Your task to perform on an android device: Go to location settings Image 0: 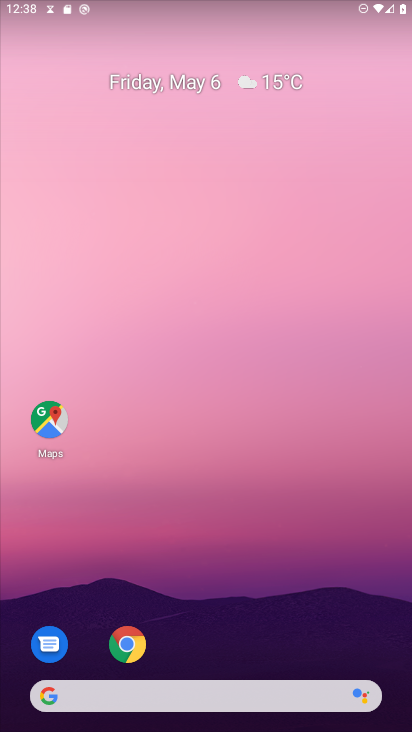
Step 0: drag from (356, 587) to (218, 6)
Your task to perform on an android device: Go to location settings Image 1: 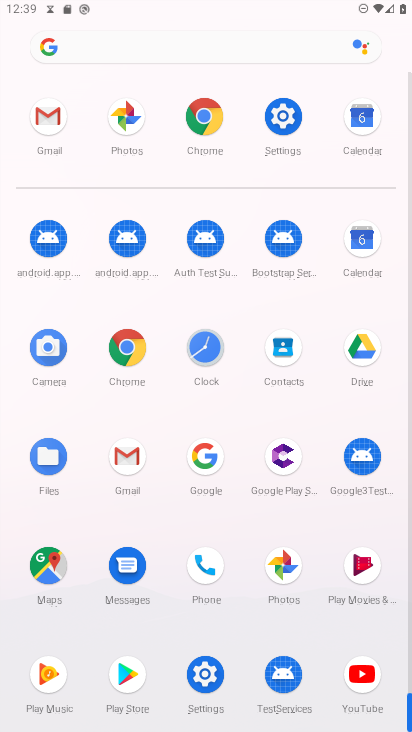
Step 1: click (282, 115)
Your task to perform on an android device: Go to location settings Image 2: 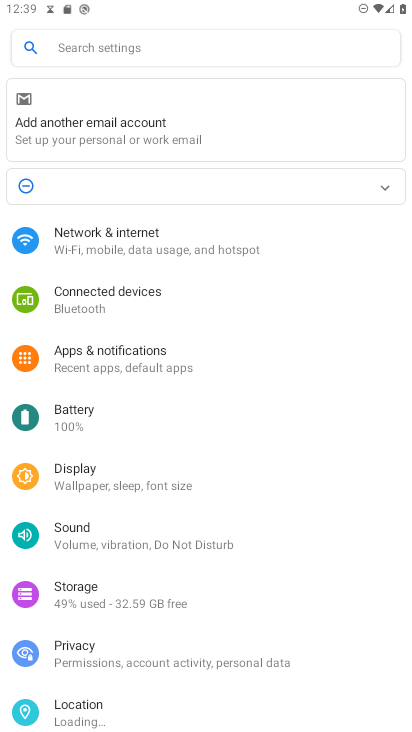
Step 2: drag from (270, 519) to (271, 131)
Your task to perform on an android device: Go to location settings Image 3: 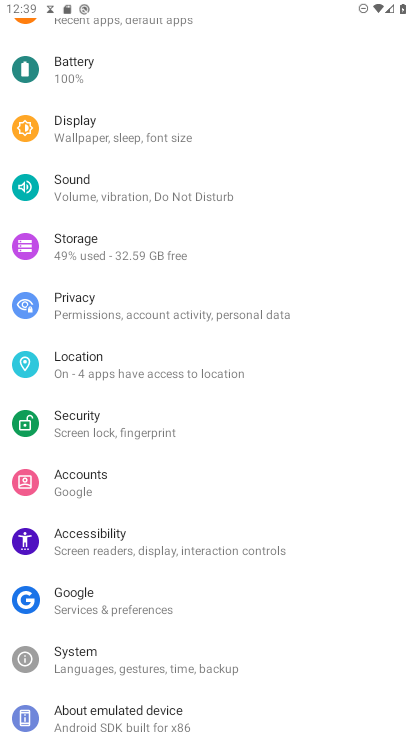
Step 3: click (109, 354)
Your task to perform on an android device: Go to location settings Image 4: 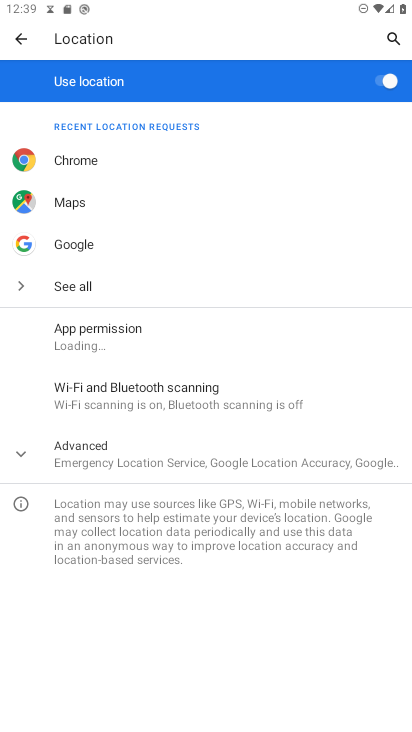
Step 4: click (27, 452)
Your task to perform on an android device: Go to location settings Image 5: 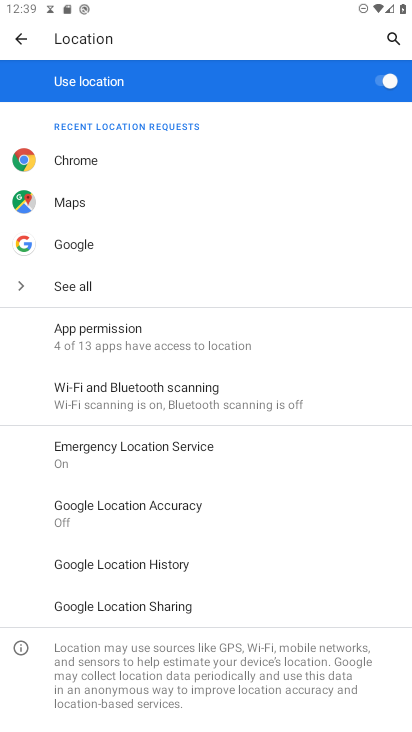
Step 5: task complete